Your task to perform on an android device: Search for sushi restaurants on Maps Image 0: 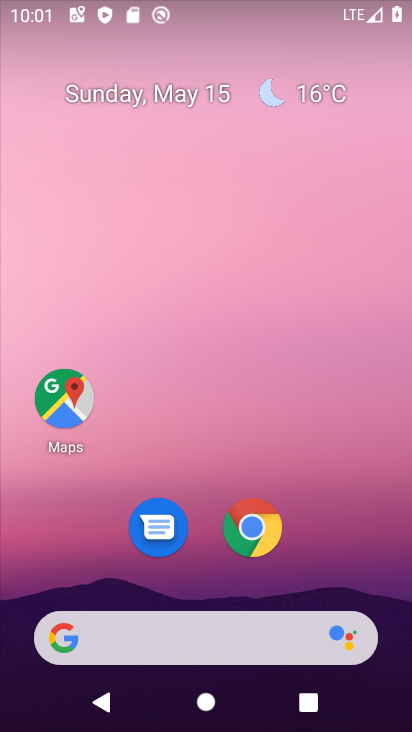
Step 0: click (64, 396)
Your task to perform on an android device: Search for sushi restaurants on Maps Image 1: 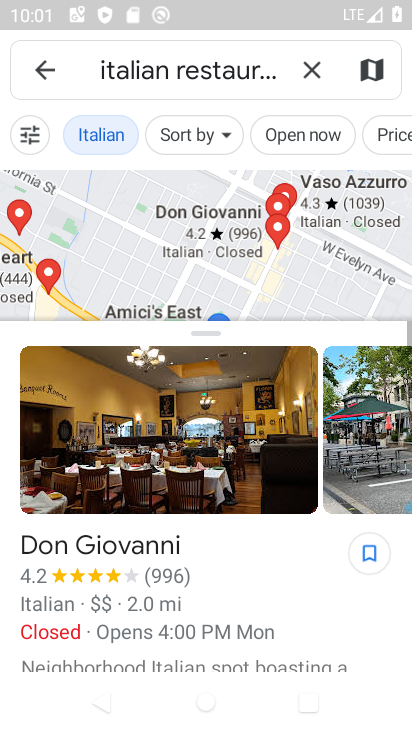
Step 1: click (311, 82)
Your task to perform on an android device: Search for sushi restaurants on Maps Image 2: 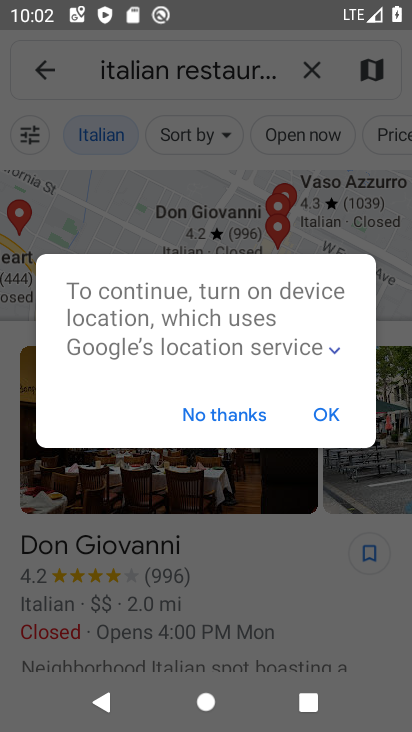
Step 2: click (216, 420)
Your task to perform on an android device: Search for sushi restaurants on Maps Image 3: 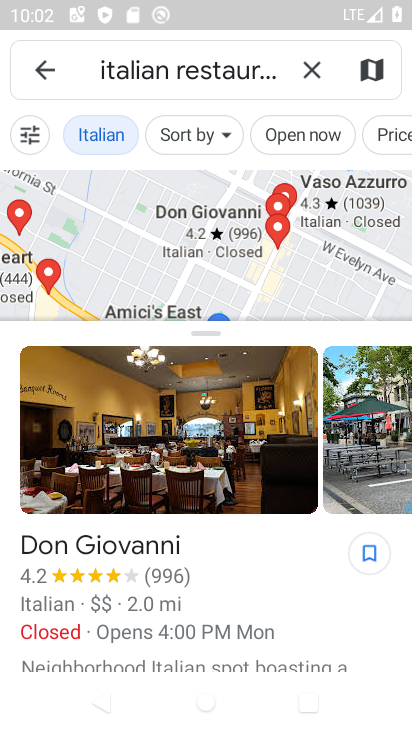
Step 3: click (313, 74)
Your task to perform on an android device: Search for sushi restaurants on Maps Image 4: 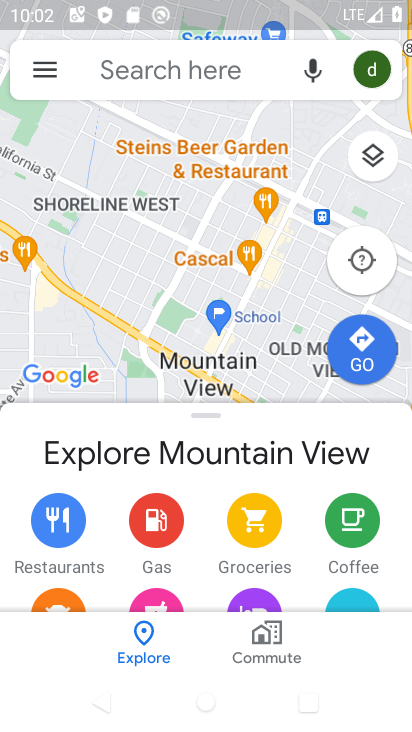
Step 4: click (98, 67)
Your task to perform on an android device: Search for sushi restaurants on Maps Image 5: 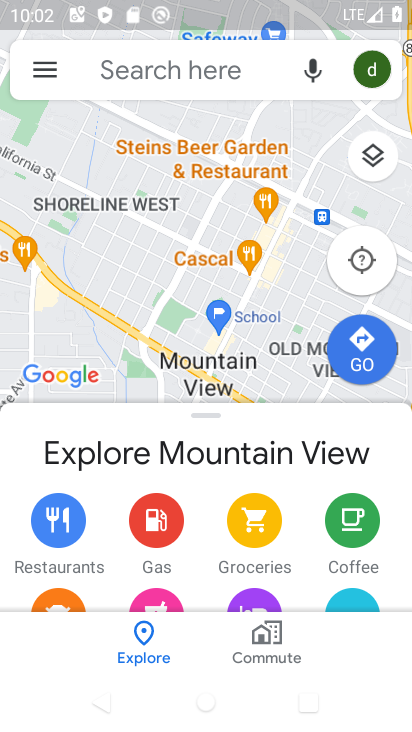
Step 5: click (109, 70)
Your task to perform on an android device: Search for sushi restaurants on Maps Image 6: 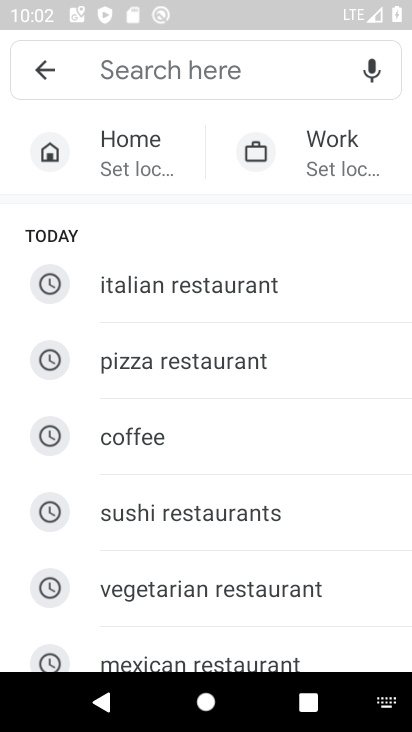
Step 6: type "sushi restaurant"
Your task to perform on an android device: Search for sushi restaurants on Maps Image 7: 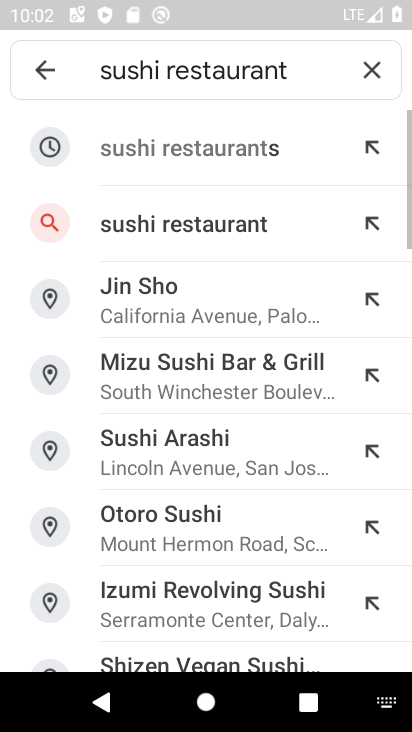
Step 7: click (207, 150)
Your task to perform on an android device: Search for sushi restaurants on Maps Image 8: 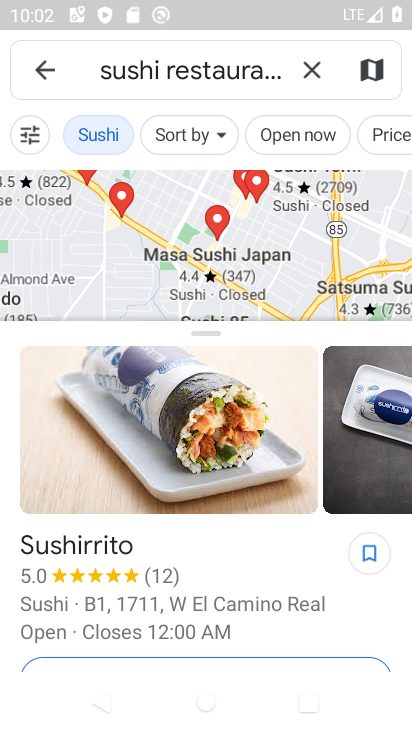
Step 8: task complete